Your task to perform on an android device: turn pop-ups off in chrome Image 0: 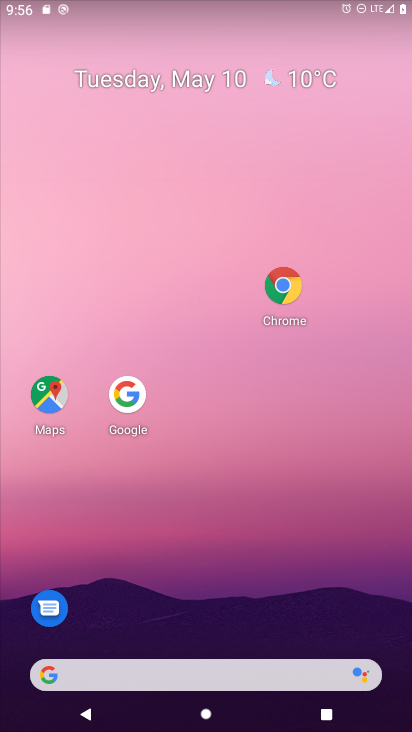
Step 0: drag from (177, 664) to (335, 120)
Your task to perform on an android device: turn pop-ups off in chrome Image 1: 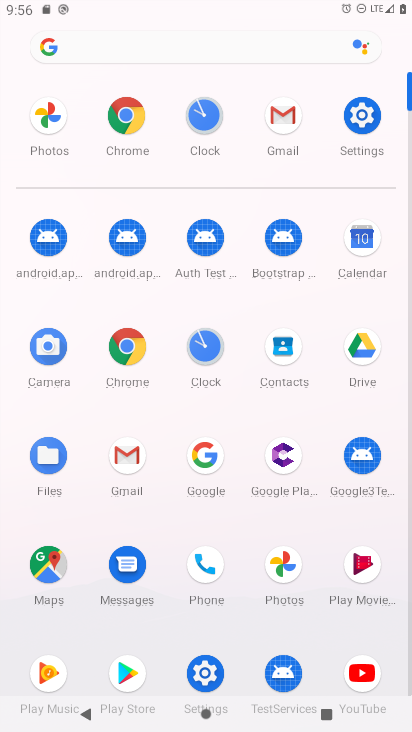
Step 1: click (123, 119)
Your task to perform on an android device: turn pop-ups off in chrome Image 2: 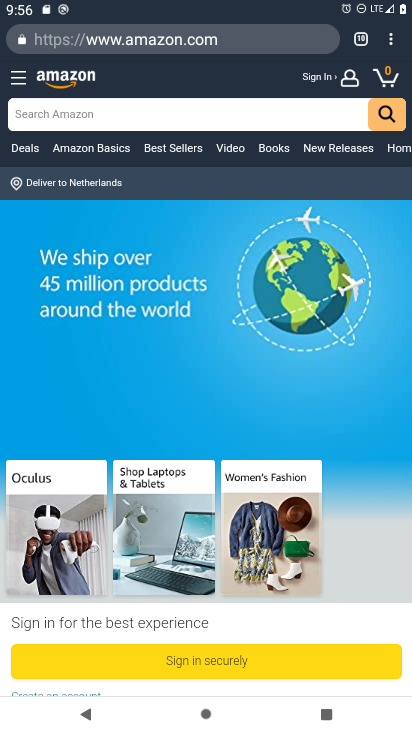
Step 2: drag from (388, 43) to (294, 475)
Your task to perform on an android device: turn pop-ups off in chrome Image 3: 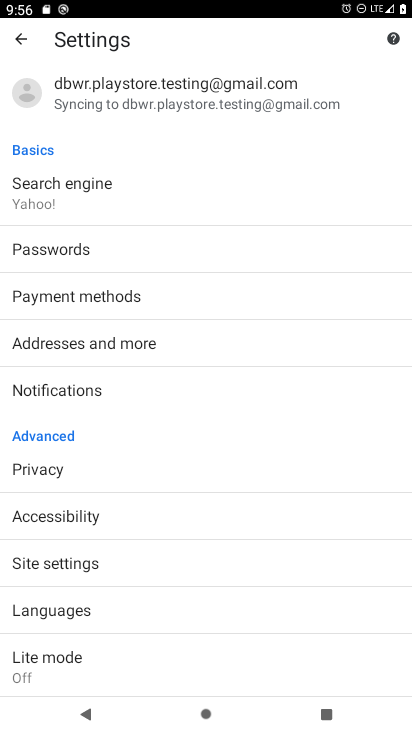
Step 3: click (75, 567)
Your task to perform on an android device: turn pop-ups off in chrome Image 4: 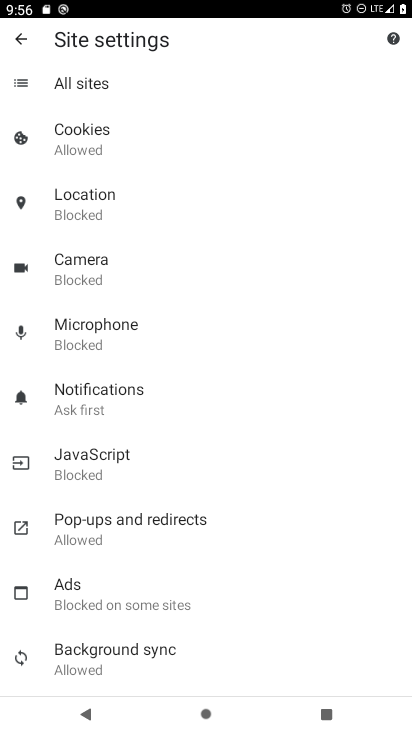
Step 4: click (108, 536)
Your task to perform on an android device: turn pop-ups off in chrome Image 5: 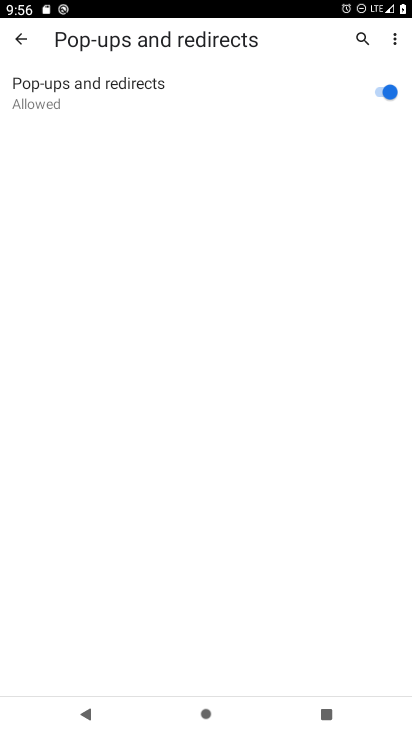
Step 5: click (381, 90)
Your task to perform on an android device: turn pop-ups off in chrome Image 6: 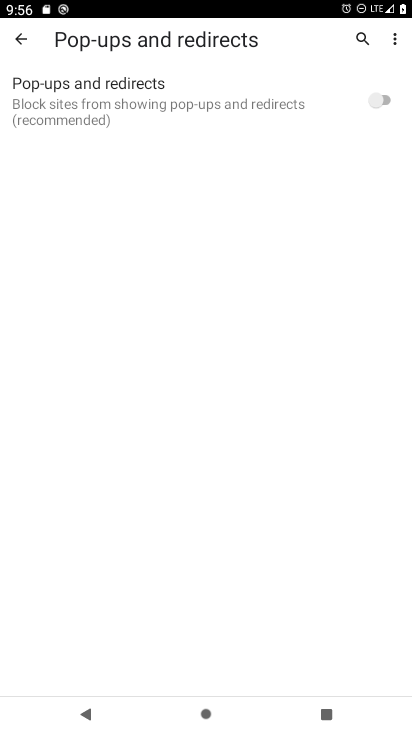
Step 6: task complete